Your task to perform on an android device: turn smart compose on in the gmail app Image 0: 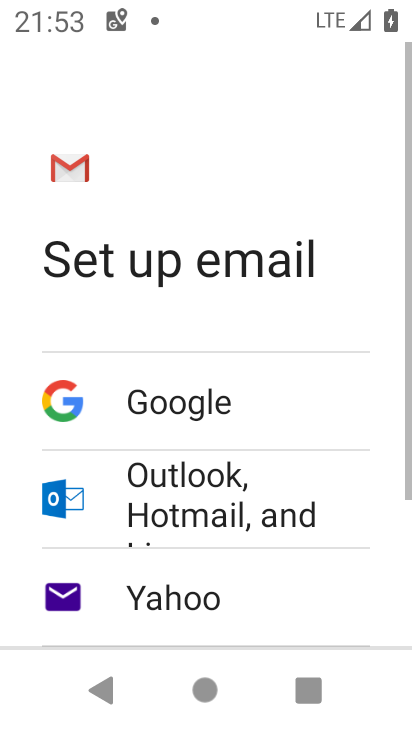
Step 0: press home button
Your task to perform on an android device: turn smart compose on in the gmail app Image 1: 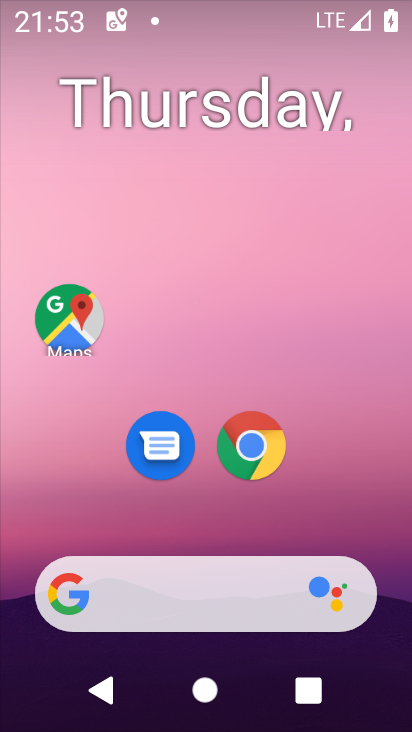
Step 1: drag from (185, 494) to (191, 164)
Your task to perform on an android device: turn smart compose on in the gmail app Image 2: 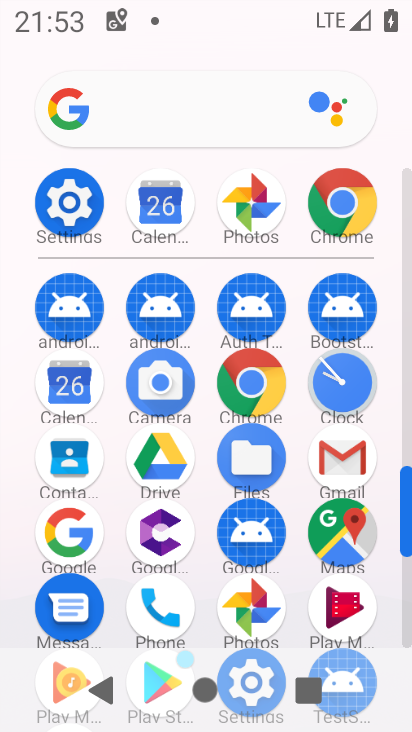
Step 2: click (346, 456)
Your task to perform on an android device: turn smart compose on in the gmail app Image 3: 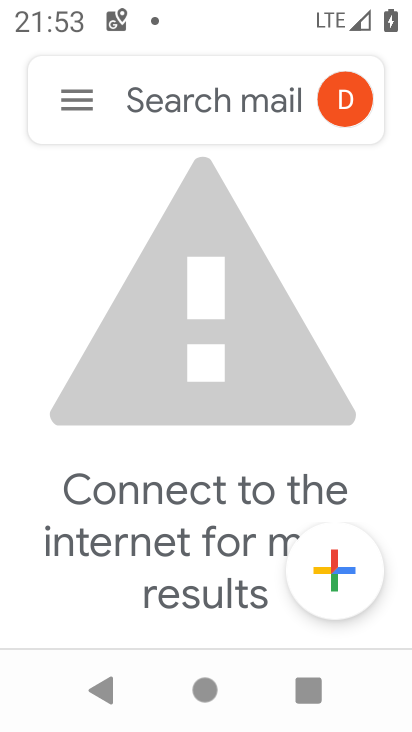
Step 3: click (84, 112)
Your task to perform on an android device: turn smart compose on in the gmail app Image 4: 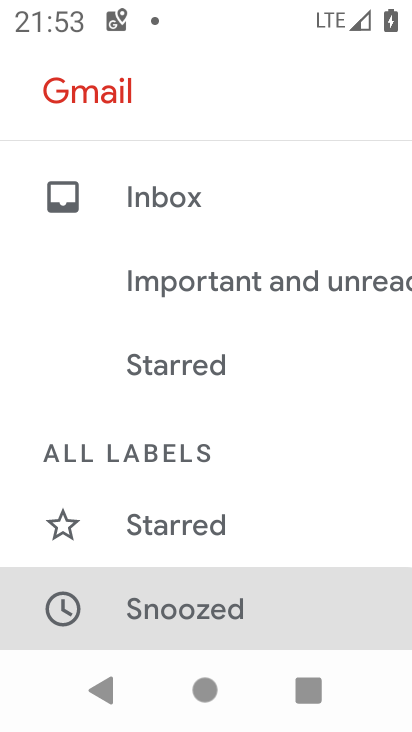
Step 4: drag from (181, 491) to (155, 122)
Your task to perform on an android device: turn smart compose on in the gmail app Image 5: 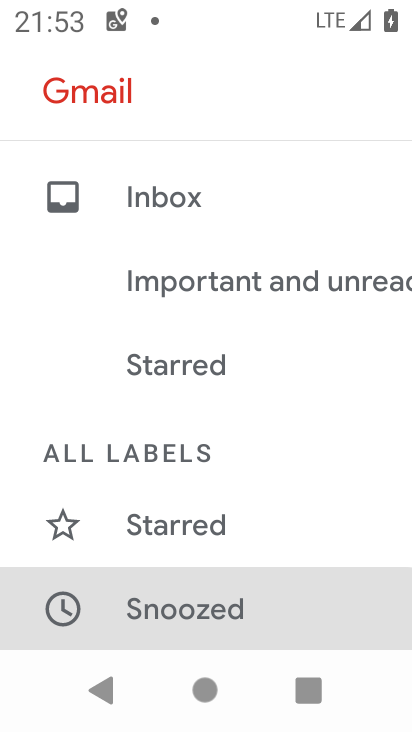
Step 5: drag from (171, 521) to (155, 196)
Your task to perform on an android device: turn smart compose on in the gmail app Image 6: 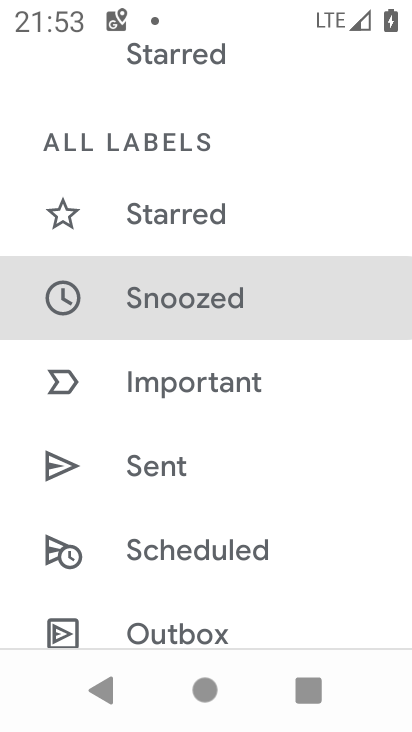
Step 6: drag from (166, 466) to (170, 136)
Your task to perform on an android device: turn smart compose on in the gmail app Image 7: 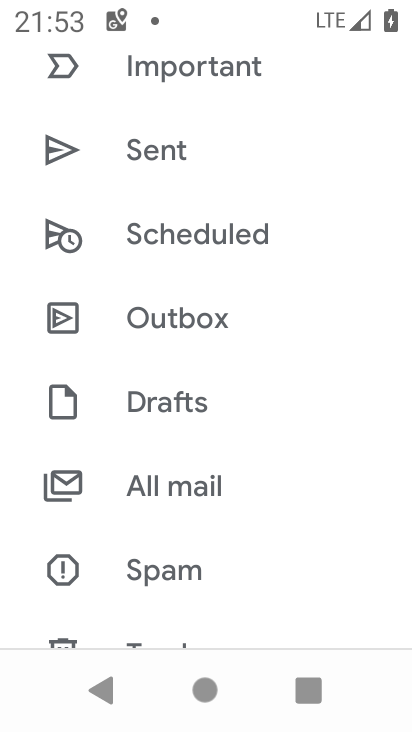
Step 7: drag from (152, 492) to (184, 173)
Your task to perform on an android device: turn smart compose on in the gmail app Image 8: 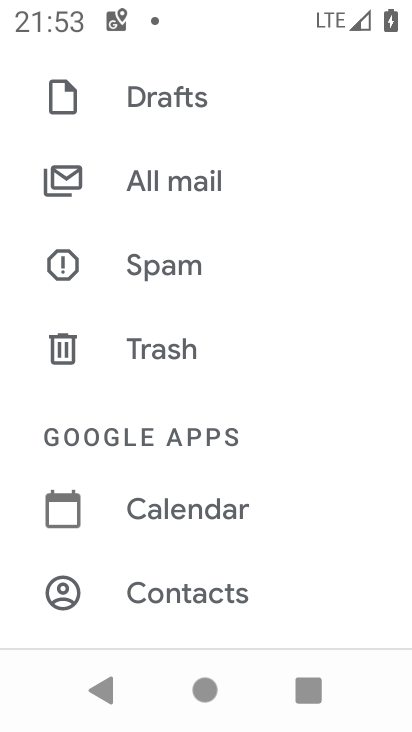
Step 8: drag from (154, 538) to (187, 116)
Your task to perform on an android device: turn smart compose on in the gmail app Image 9: 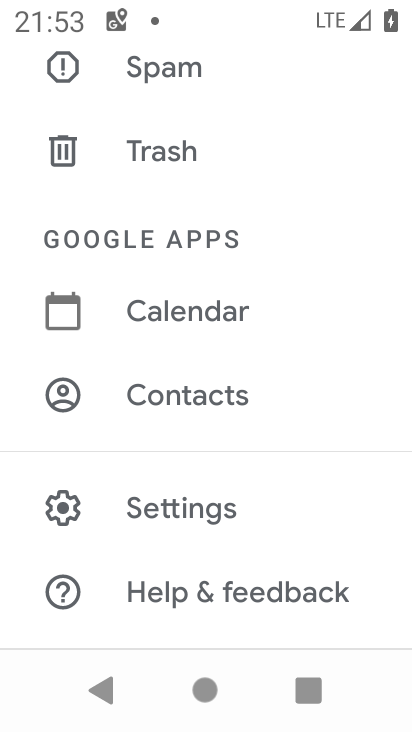
Step 9: click (174, 505)
Your task to perform on an android device: turn smart compose on in the gmail app Image 10: 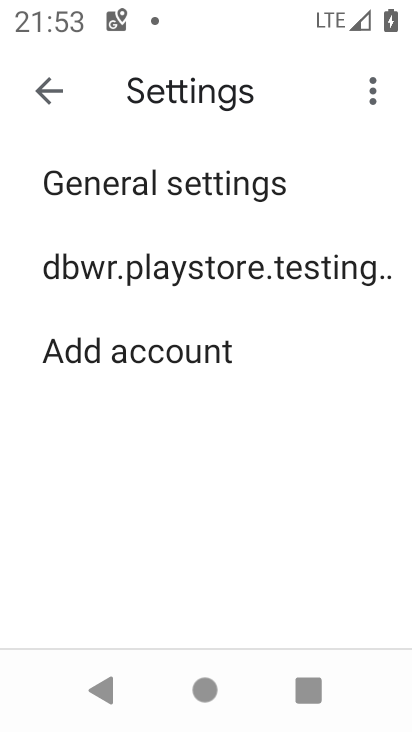
Step 10: click (198, 260)
Your task to perform on an android device: turn smart compose on in the gmail app Image 11: 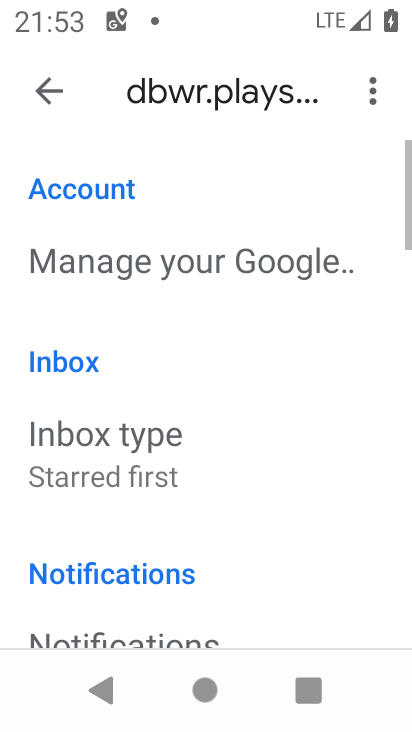
Step 11: task complete